Your task to perform on an android device: Open Chrome and go to settings Image 0: 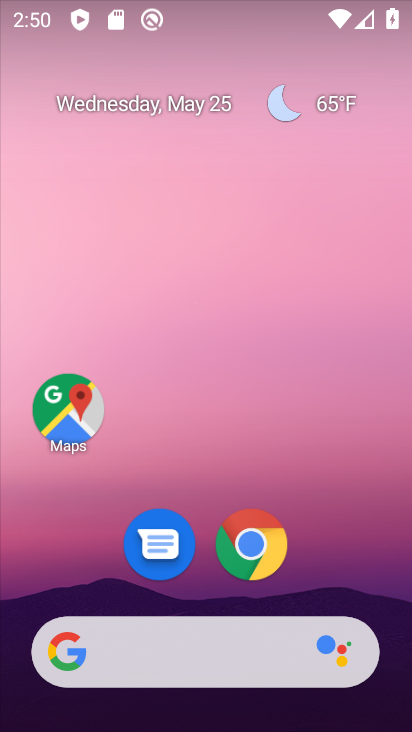
Step 0: drag from (388, 562) to (322, 112)
Your task to perform on an android device: Open Chrome and go to settings Image 1: 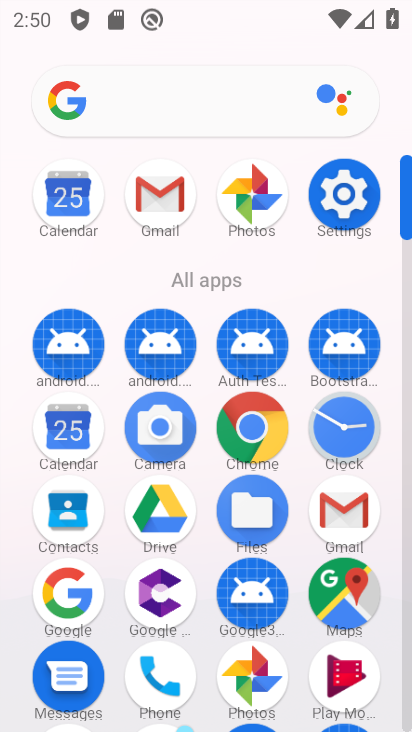
Step 1: click (268, 422)
Your task to perform on an android device: Open Chrome and go to settings Image 2: 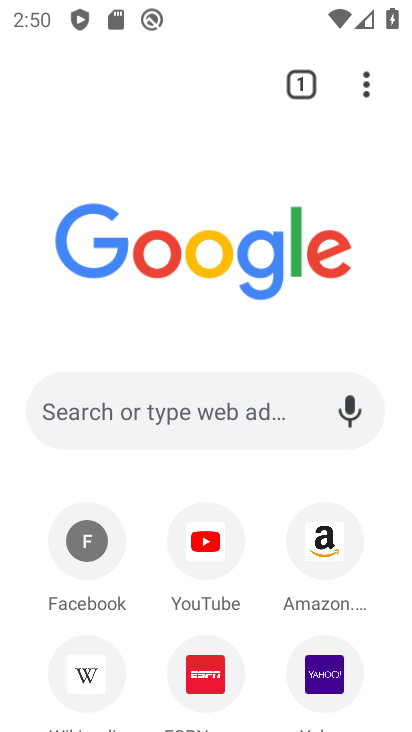
Step 2: click (363, 102)
Your task to perform on an android device: Open Chrome and go to settings Image 3: 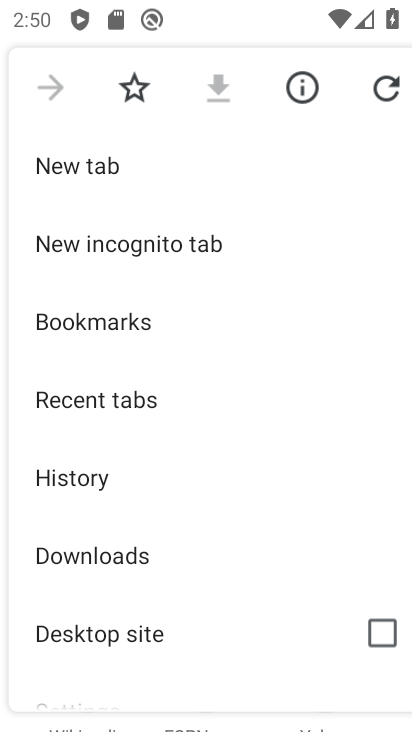
Step 3: drag from (198, 641) to (205, 194)
Your task to perform on an android device: Open Chrome and go to settings Image 4: 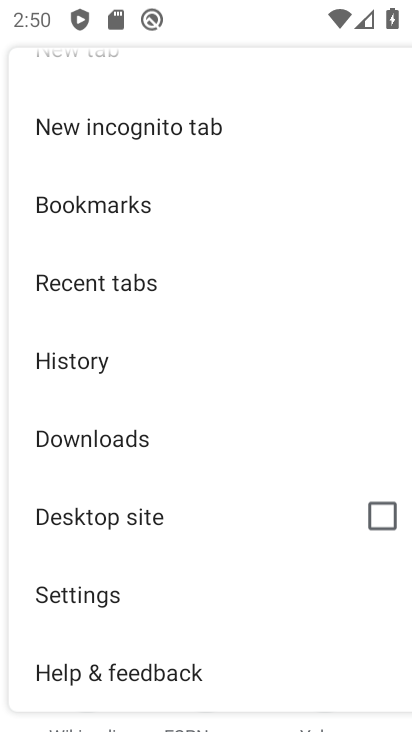
Step 4: click (160, 587)
Your task to perform on an android device: Open Chrome and go to settings Image 5: 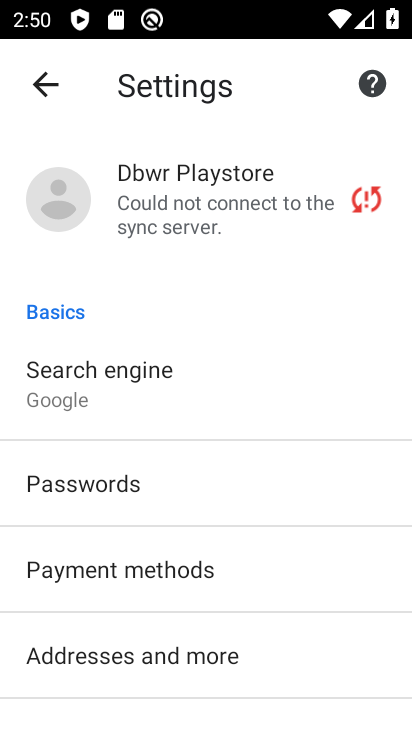
Step 5: task complete